Your task to perform on an android device: Search for seafood restaurants on Google Maps Image 0: 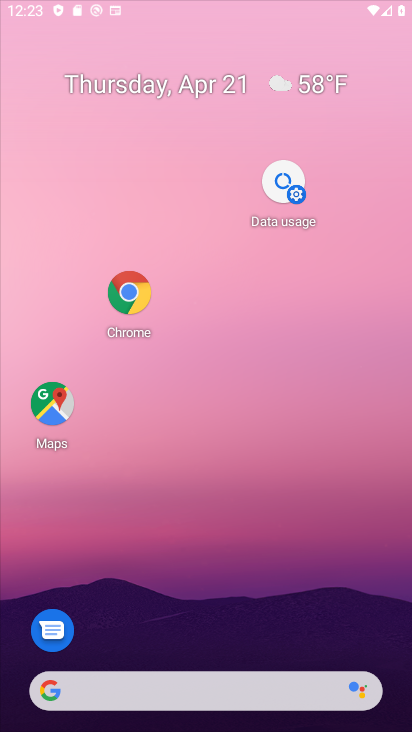
Step 0: click (134, 296)
Your task to perform on an android device: Search for seafood restaurants on Google Maps Image 1: 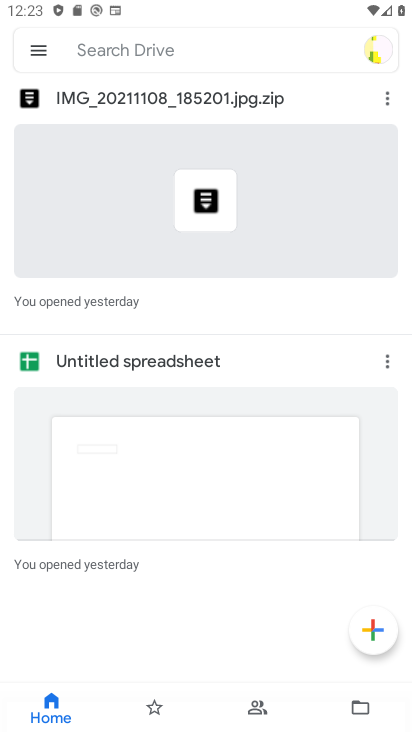
Step 1: press home button
Your task to perform on an android device: Search for seafood restaurants on Google Maps Image 2: 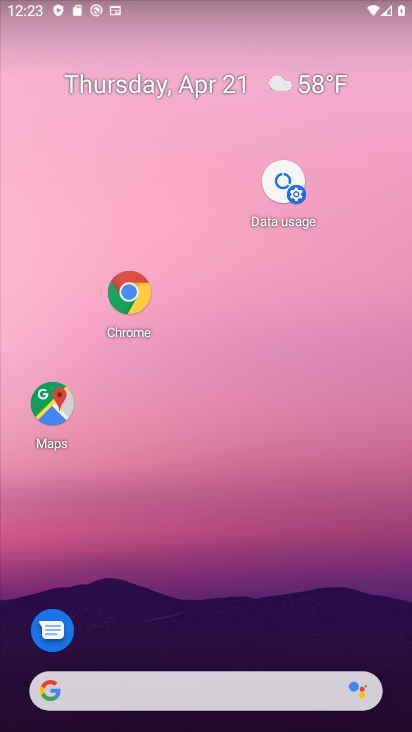
Step 2: click (52, 401)
Your task to perform on an android device: Search for seafood restaurants on Google Maps Image 3: 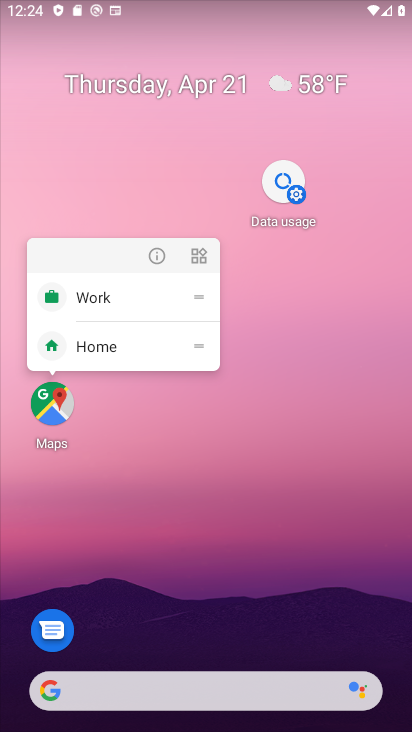
Step 3: click (53, 402)
Your task to perform on an android device: Search for seafood restaurants on Google Maps Image 4: 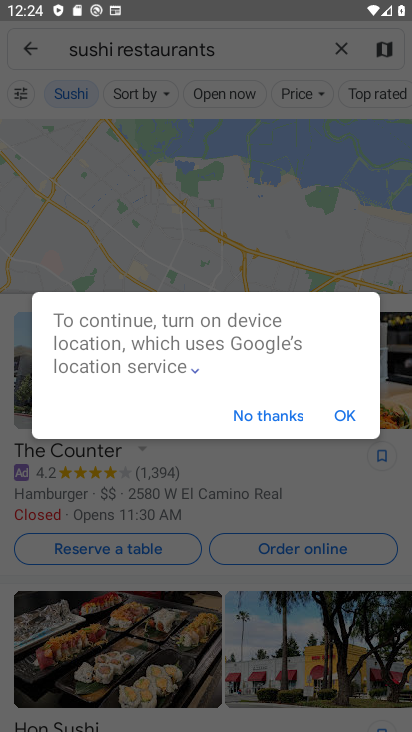
Step 4: click (343, 46)
Your task to perform on an android device: Search for seafood restaurants on Google Maps Image 5: 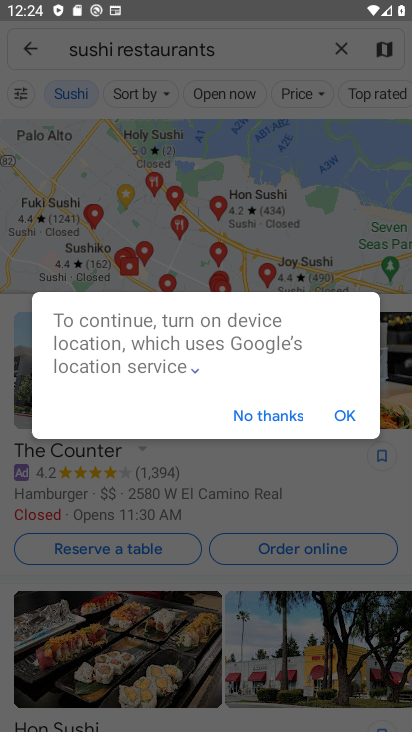
Step 5: click (337, 55)
Your task to perform on an android device: Search for seafood restaurants on Google Maps Image 6: 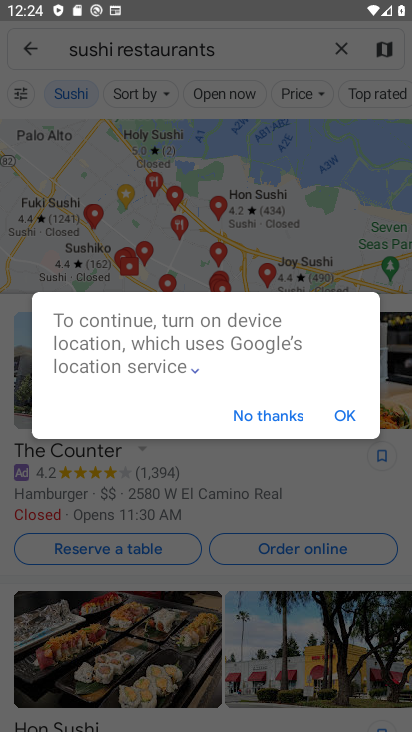
Step 6: click (273, 419)
Your task to perform on an android device: Search for seafood restaurants on Google Maps Image 7: 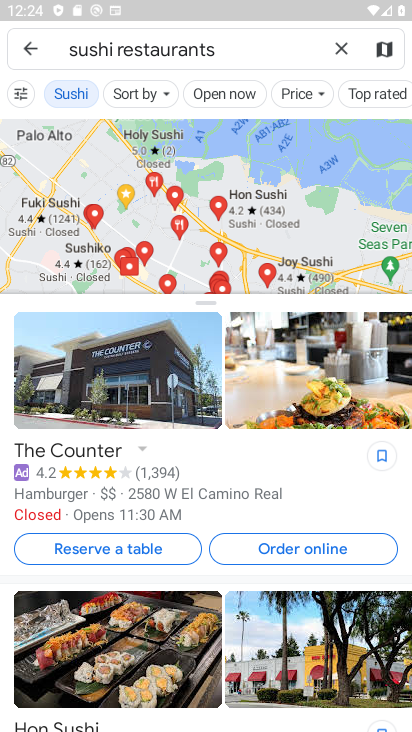
Step 7: click (342, 50)
Your task to perform on an android device: Search for seafood restaurants on Google Maps Image 8: 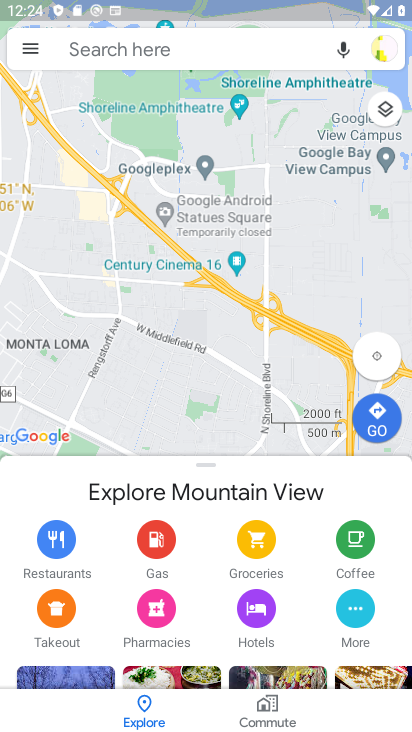
Step 8: click (218, 49)
Your task to perform on an android device: Search for seafood restaurants on Google Maps Image 9: 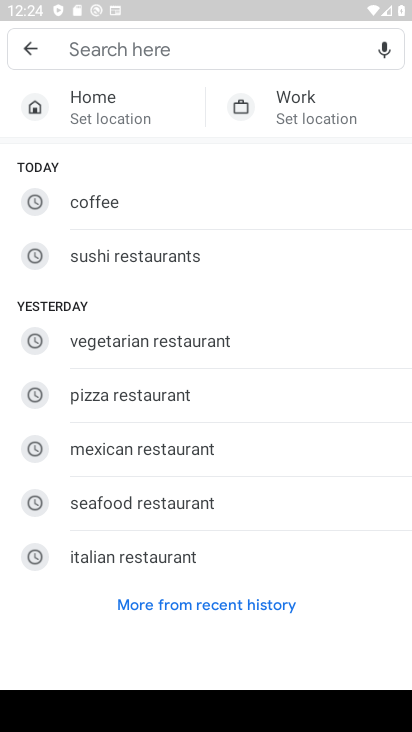
Step 9: click (126, 497)
Your task to perform on an android device: Search for seafood restaurants on Google Maps Image 10: 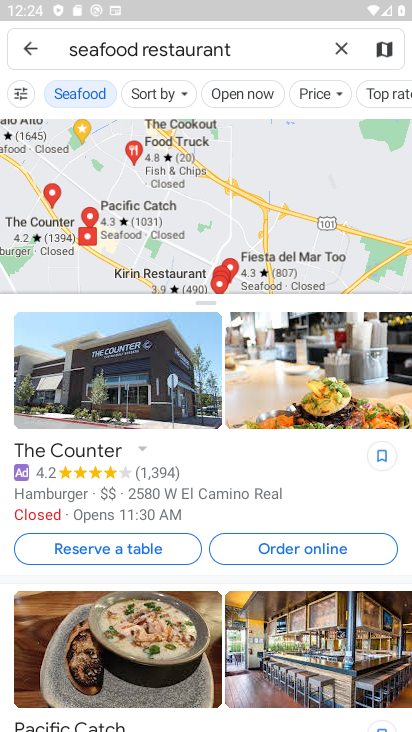
Step 10: task complete